Your task to perform on an android device: Open display settings Image 0: 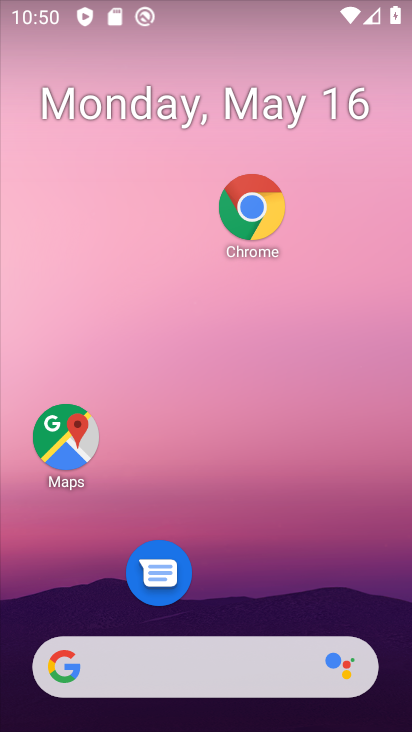
Step 0: drag from (258, 661) to (304, 39)
Your task to perform on an android device: Open display settings Image 1: 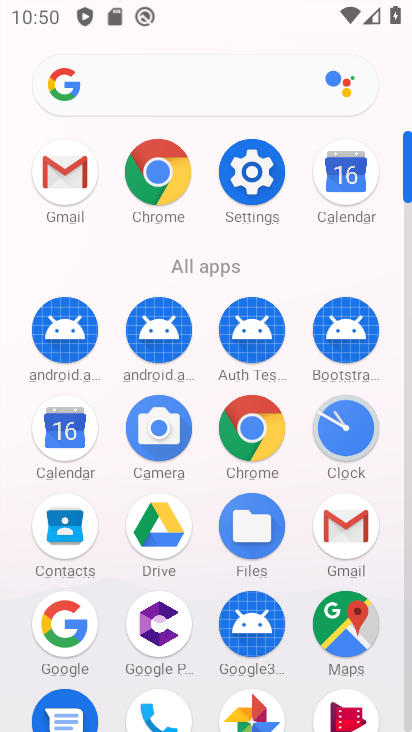
Step 1: click (246, 175)
Your task to perform on an android device: Open display settings Image 2: 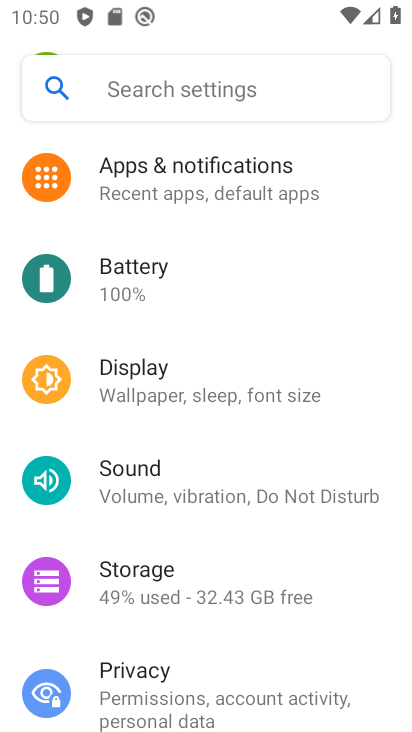
Step 2: click (201, 388)
Your task to perform on an android device: Open display settings Image 3: 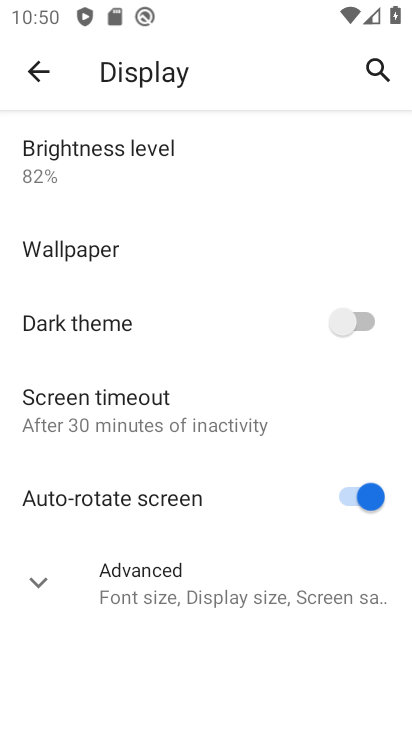
Step 3: task complete